Your task to perform on an android device: check storage Image 0: 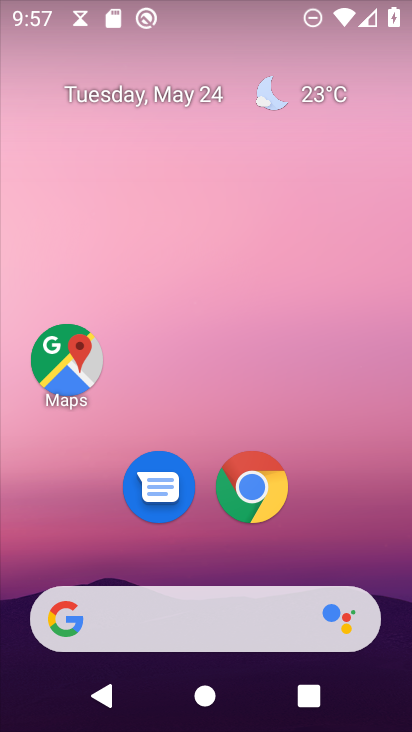
Step 0: drag from (86, 558) to (322, 134)
Your task to perform on an android device: check storage Image 1: 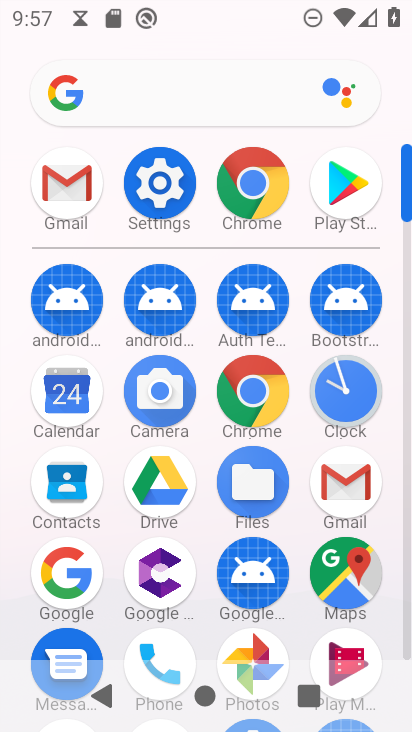
Step 1: click (163, 184)
Your task to perform on an android device: check storage Image 2: 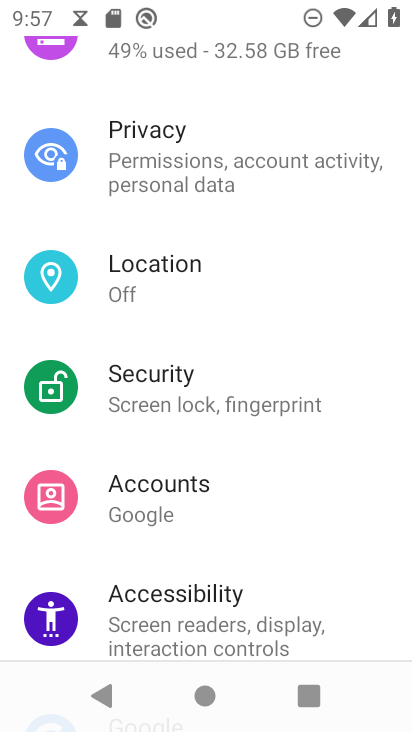
Step 2: drag from (212, 157) to (142, 575)
Your task to perform on an android device: check storage Image 3: 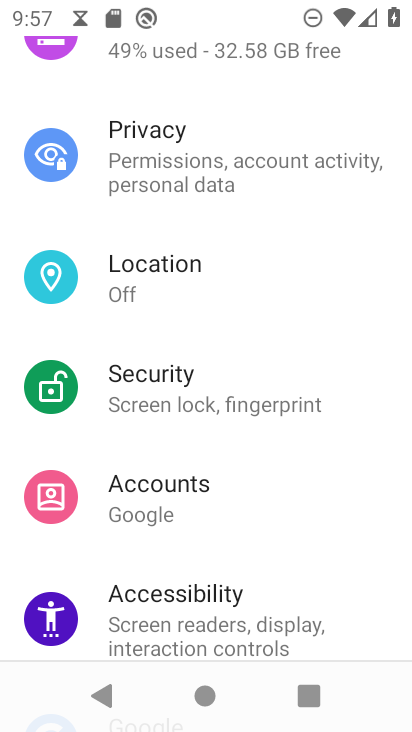
Step 3: drag from (155, 113) to (88, 553)
Your task to perform on an android device: check storage Image 4: 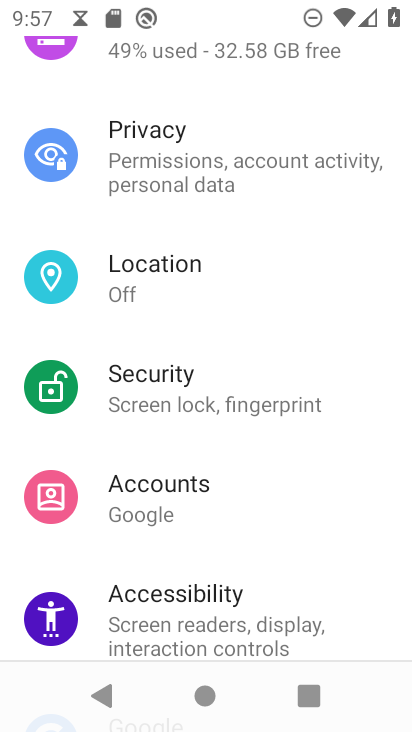
Step 4: drag from (169, 220) to (170, 580)
Your task to perform on an android device: check storage Image 5: 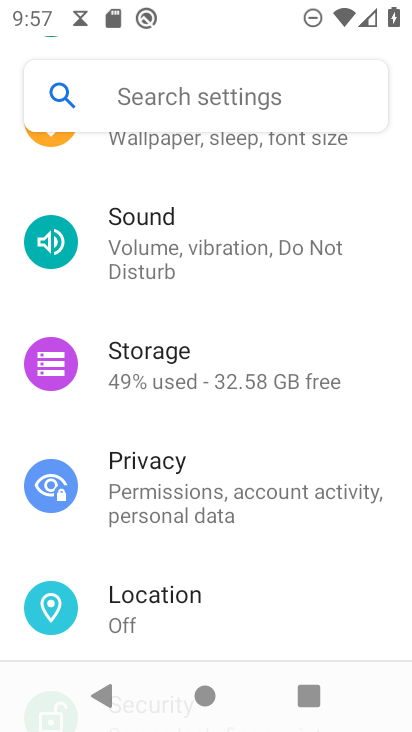
Step 5: click (127, 380)
Your task to perform on an android device: check storage Image 6: 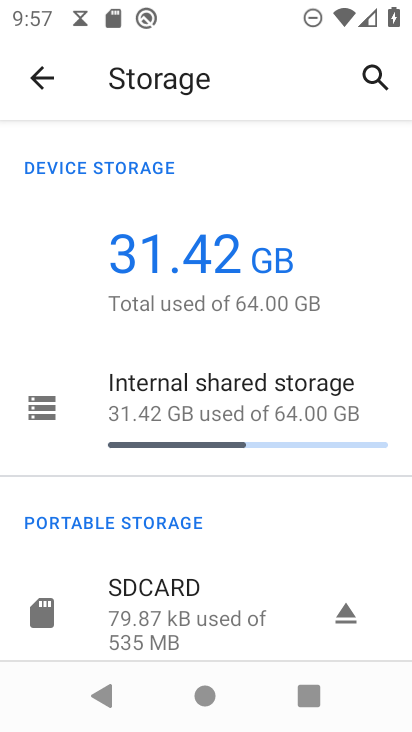
Step 6: task complete